Your task to perform on an android device: find photos in the google photos app Image 0: 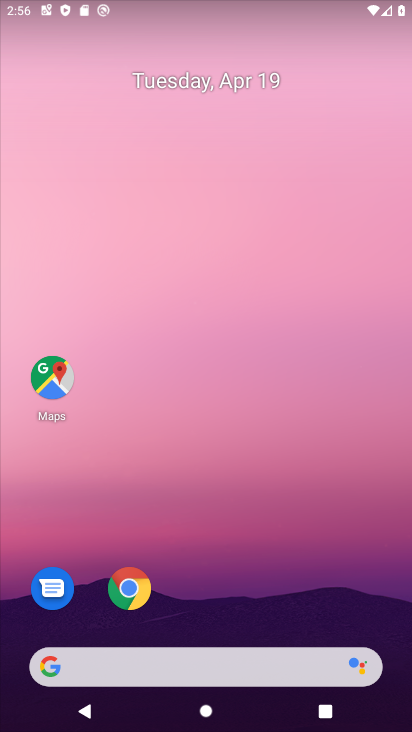
Step 0: drag from (292, 653) to (276, 292)
Your task to perform on an android device: find photos in the google photos app Image 1: 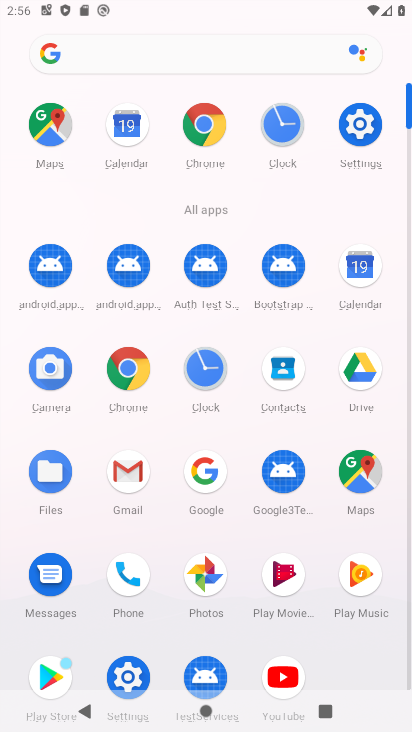
Step 1: click (215, 582)
Your task to perform on an android device: find photos in the google photos app Image 2: 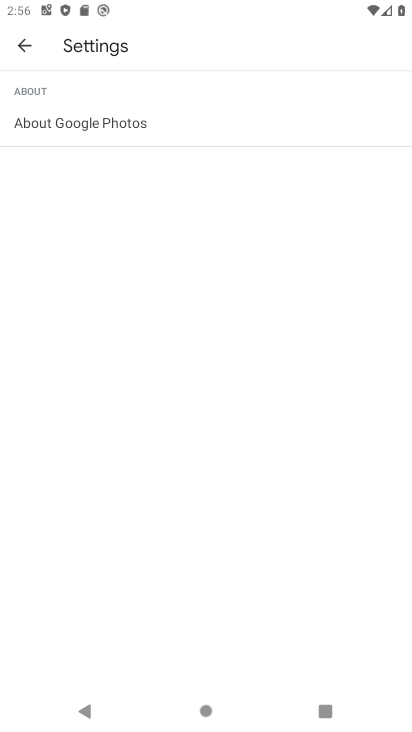
Step 2: click (25, 56)
Your task to perform on an android device: find photos in the google photos app Image 3: 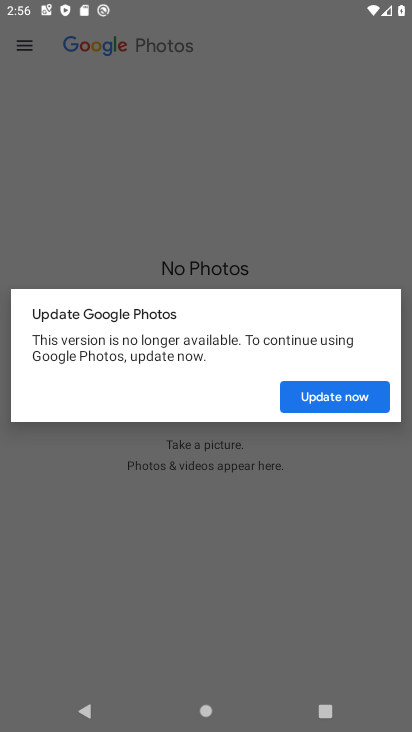
Step 3: click (314, 416)
Your task to perform on an android device: find photos in the google photos app Image 4: 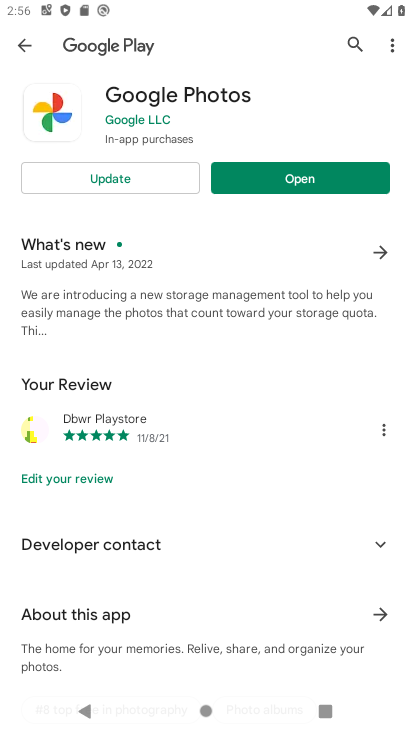
Step 4: click (152, 183)
Your task to perform on an android device: find photos in the google photos app Image 5: 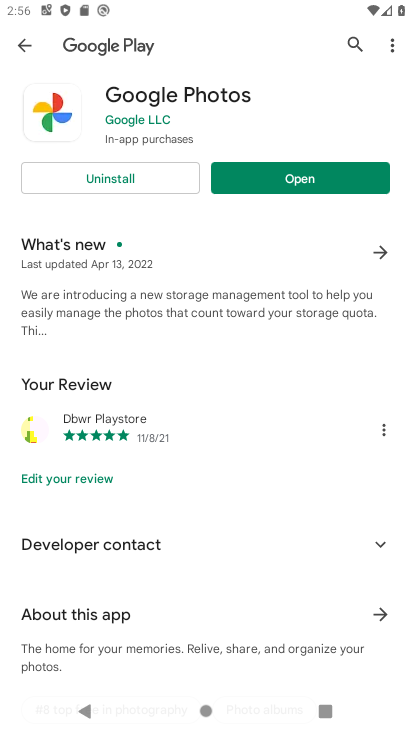
Step 5: click (299, 184)
Your task to perform on an android device: find photos in the google photos app Image 6: 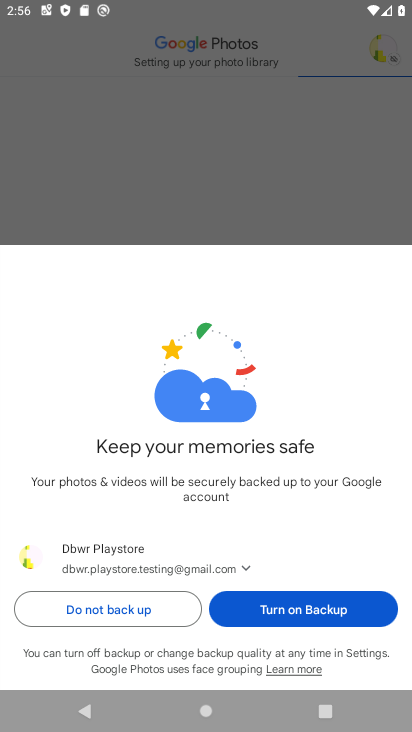
Step 6: click (258, 601)
Your task to perform on an android device: find photos in the google photos app Image 7: 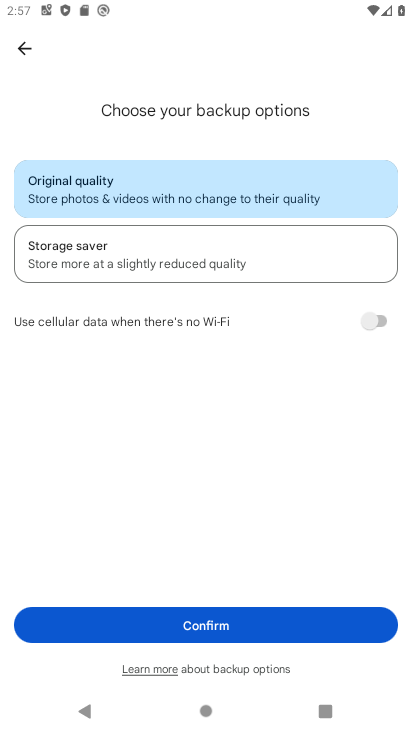
Step 7: click (218, 620)
Your task to perform on an android device: find photos in the google photos app Image 8: 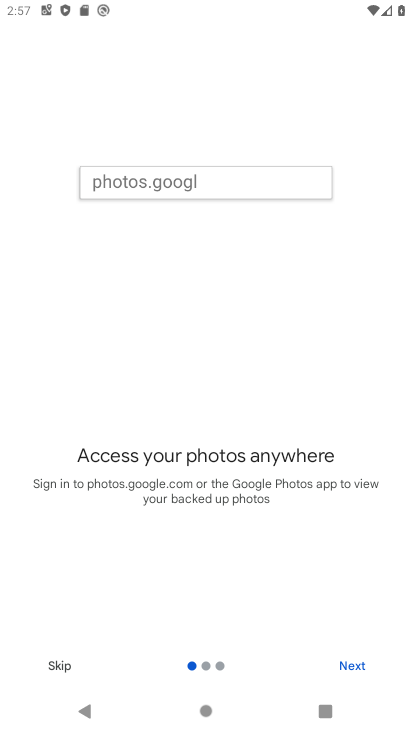
Step 8: click (341, 652)
Your task to perform on an android device: find photos in the google photos app Image 9: 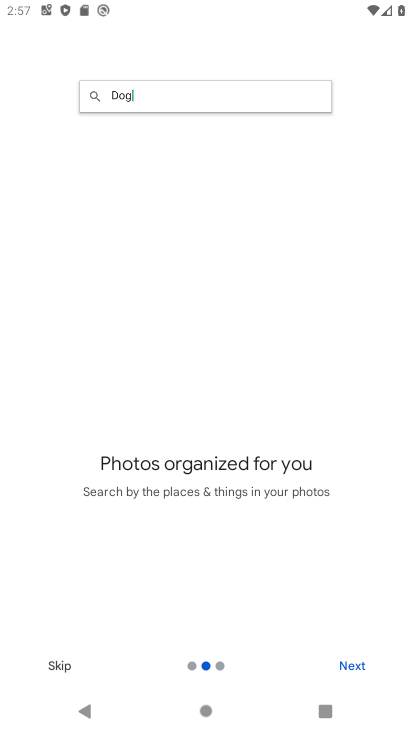
Step 9: click (354, 669)
Your task to perform on an android device: find photos in the google photos app Image 10: 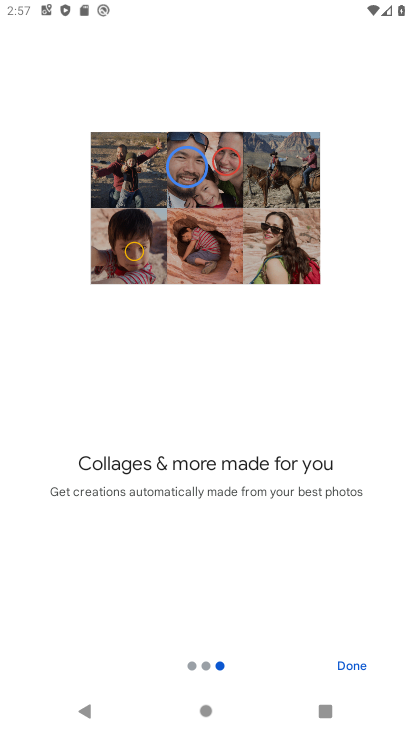
Step 10: click (363, 659)
Your task to perform on an android device: find photos in the google photos app Image 11: 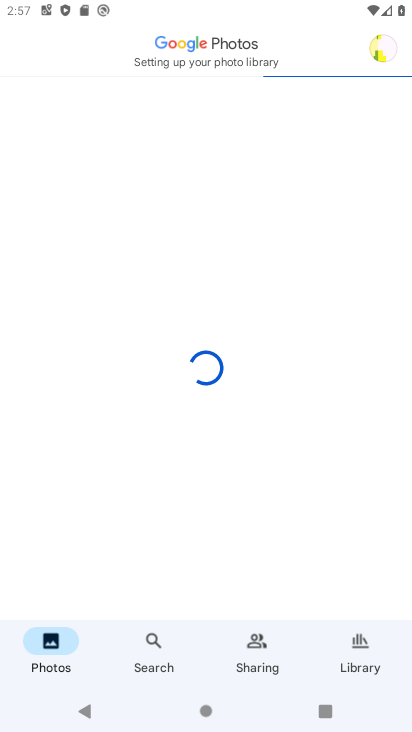
Step 11: task complete